Your task to perform on an android device: stop showing notifications on the lock screen Image 0: 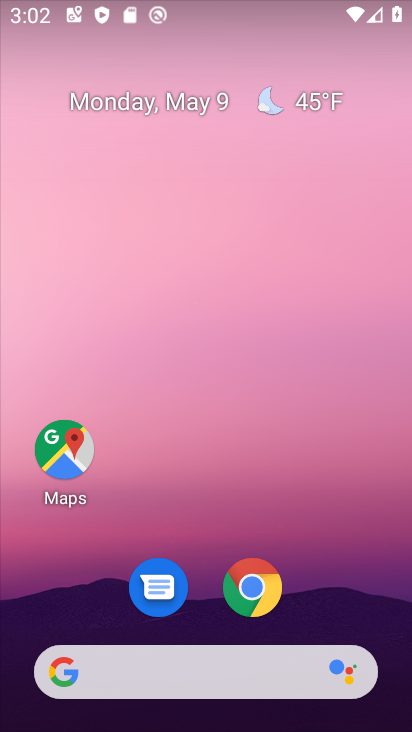
Step 0: drag from (206, 637) to (240, 350)
Your task to perform on an android device: stop showing notifications on the lock screen Image 1: 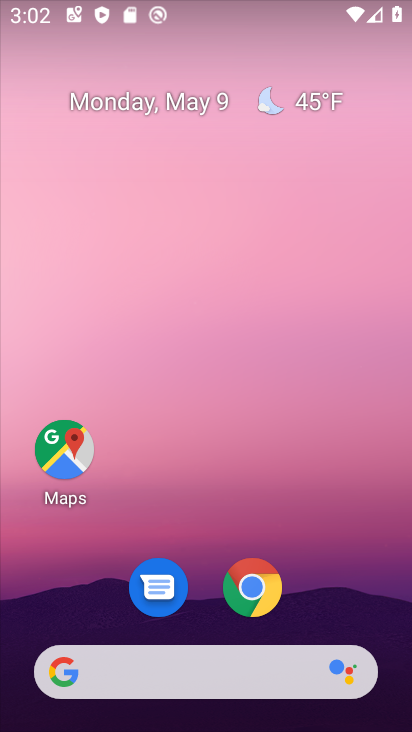
Step 1: drag from (203, 623) to (235, 304)
Your task to perform on an android device: stop showing notifications on the lock screen Image 2: 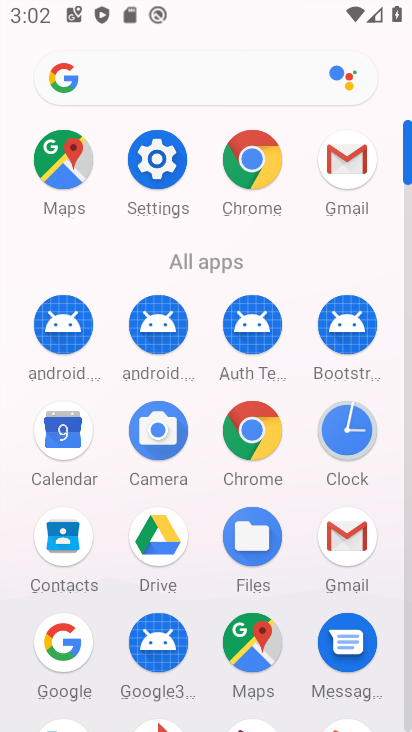
Step 2: drag from (160, 645) to (208, 469)
Your task to perform on an android device: stop showing notifications on the lock screen Image 3: 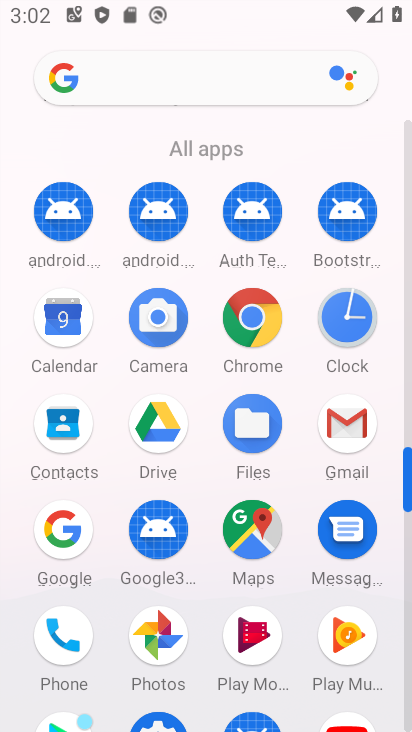
Step 3: drag from (218, 451) to (262, 305)
Your task to perform on an android device: stop showing notifications on the lock screen Image 4: 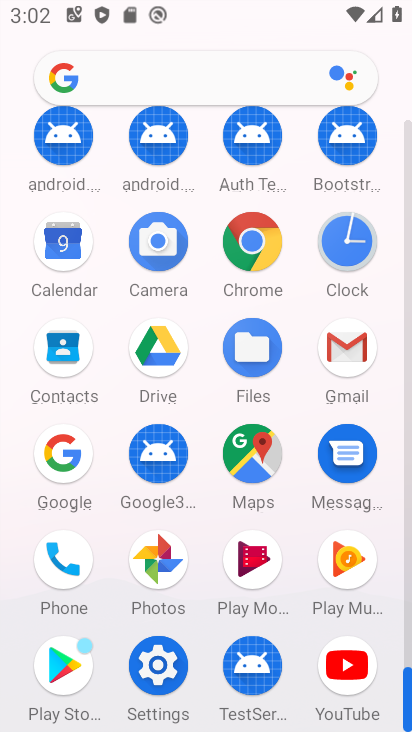
Step 4: click (161, 667)
Your task to perform on an android device: stop showing notifications on the lock screen Image 5: 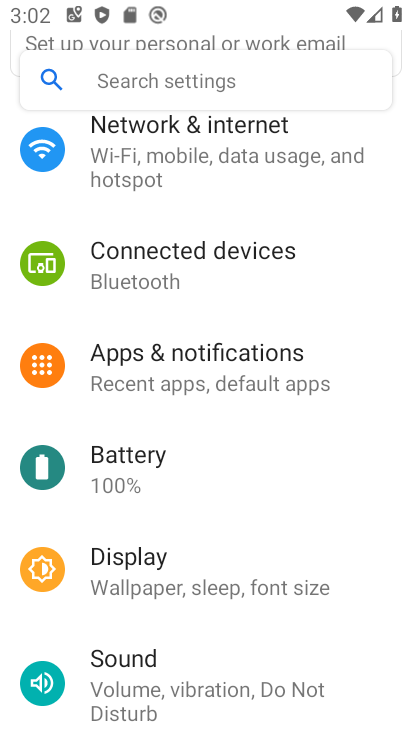
Step 5: drag from (161, 667) to (230, 454)
Your task to perform on an android device: stop showing notifications on the lock screen Image 6: 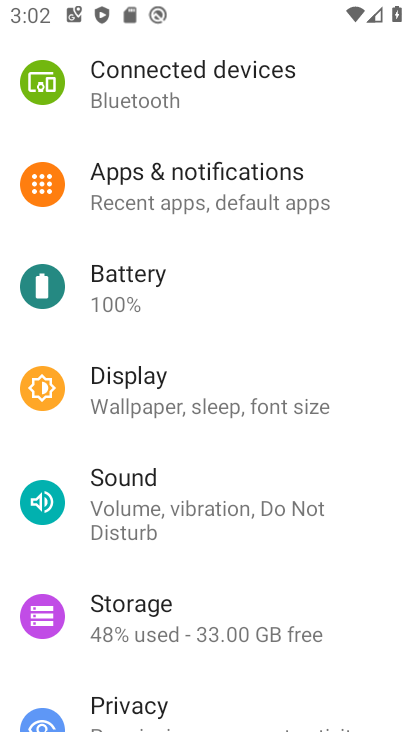
Step 6: click (223, 182)
Your task to perform on an android device: stop showing notifications on the lock screen Image 7: 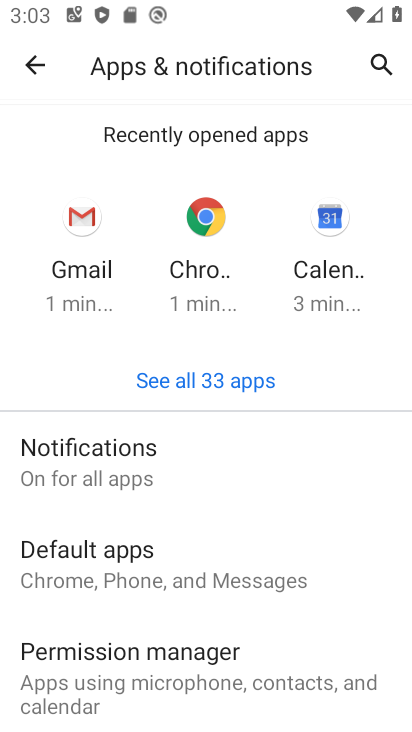
Step 7: click (169, 484)
Your task to perform on an android device: stop showing notifications on the lock screen Image 8: 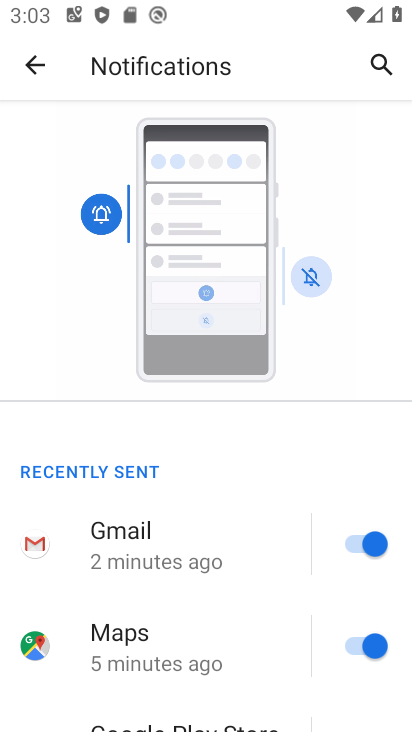
Step 8: drag from (189, 682) to (269, 381)
Your task to perform on an android device: stop showing notifications on the lock screen Image 9: 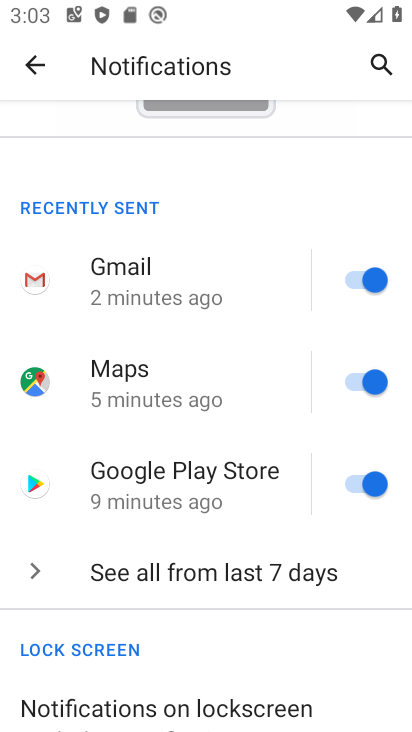
Step 9: drag from (233, 614) to (281, 426)
Your task to perform on an android device: stop showing notifications on the lock screen Image 10: 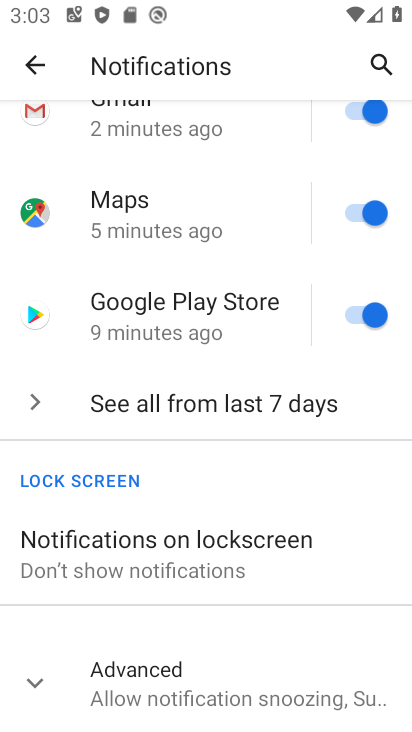
Step 10: click (272, 532)
Your task to perform on an android device: stop showing notifications on the lock screen Image 11: 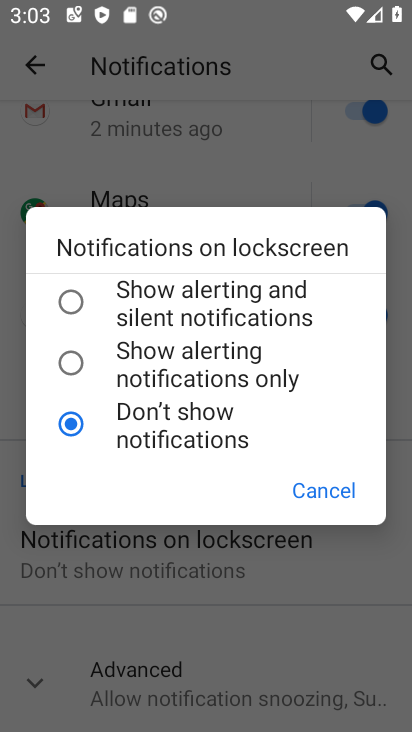
Step 11: task complete